Your task to perform on an android device: toggle notifications settings in the gmail app Image 0: 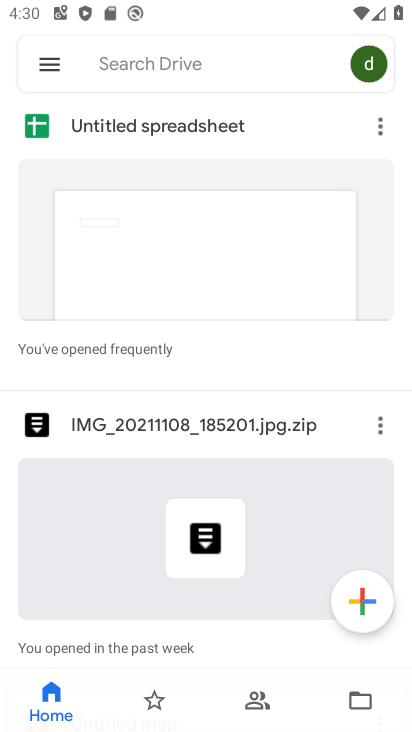
Step 0: press home button
Your task to perform on an android device: toggle notifications settings in the gmail app Image 1: 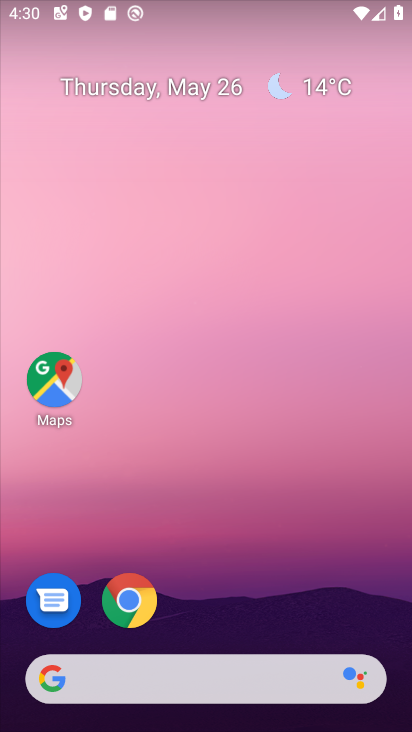
Step 1: drag from (235, 626) to (261, 114)
Your task to perform on an android device: toggle notifications settings in the gmail app Image 2: 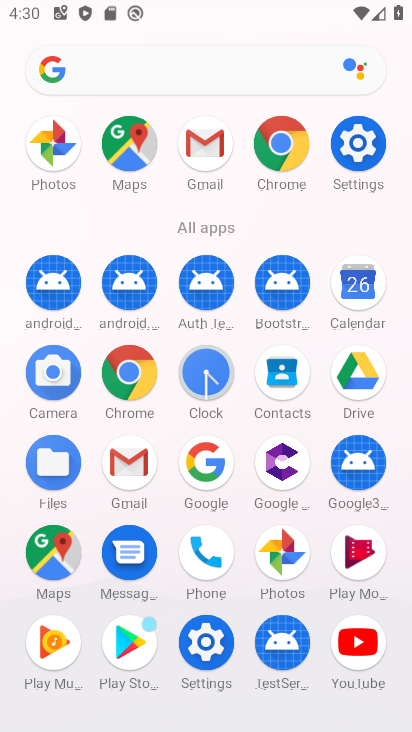
Step 2: click (220, 626)
Your task to perform on an android device: toggle notifications settings in the gmail app Image 3: 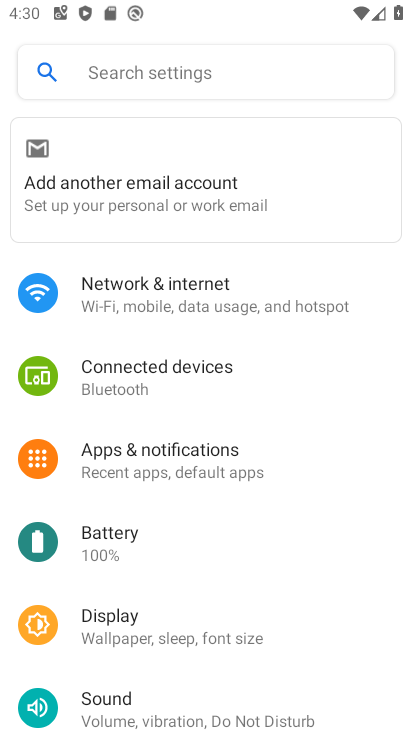
Step 3: click (179, 448)
Your task to perform on an android device: toggle notifications settings in the gmail app Image 4: 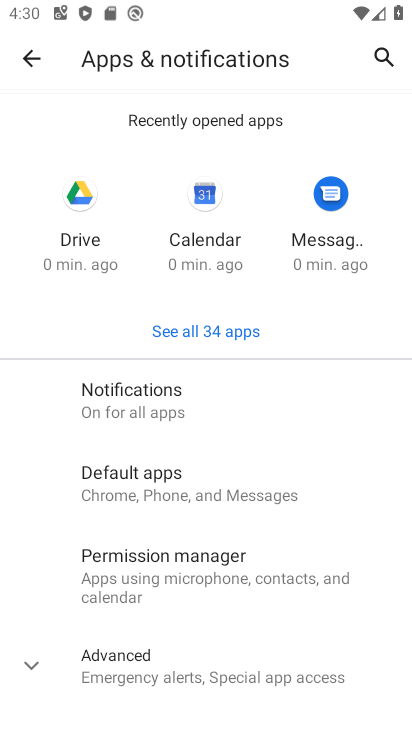
Step 4: click (142, 411)
Your task to perform on an android device: toggle notifications settings in the gmail app Image 5: 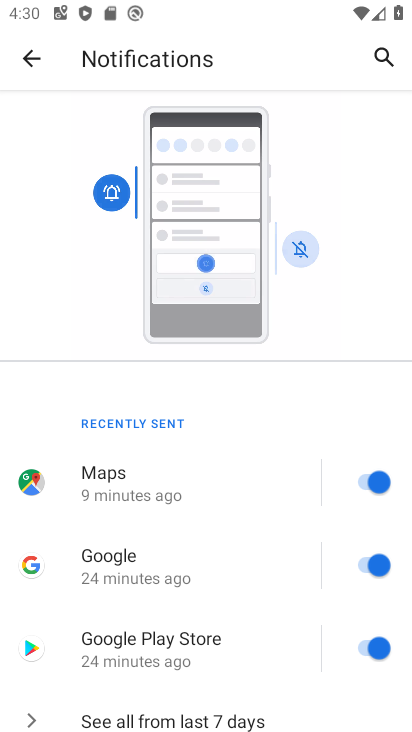
Step 5: drag from (188, 661) to (194, 185)
Your task to perform on an android device: toggle notifications settings in the gmail app Image 6: 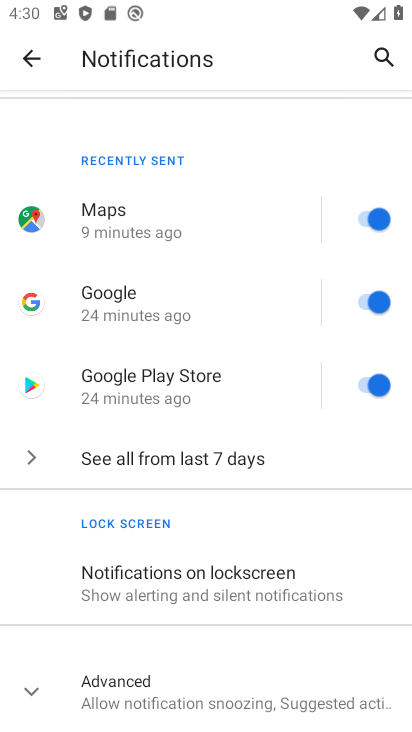
Step 6: click (203, 565)
Your task to perform on an android device: toggle notifications settings in the gmail app Image 7: 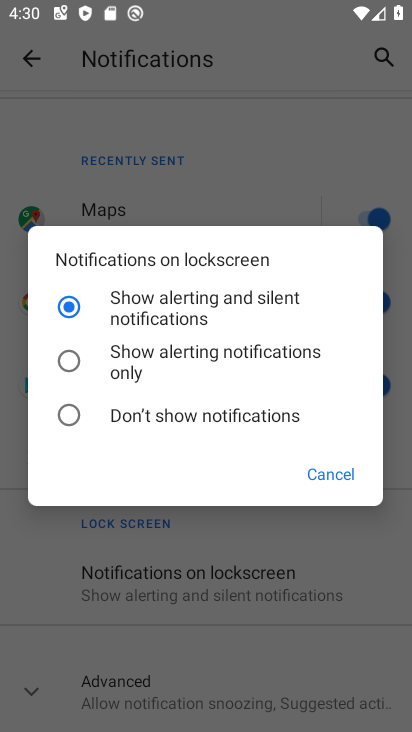
Step 7: click (141, 374)
Your task to perform on an android device: toggle notifications settings in the gmail app Image 8: 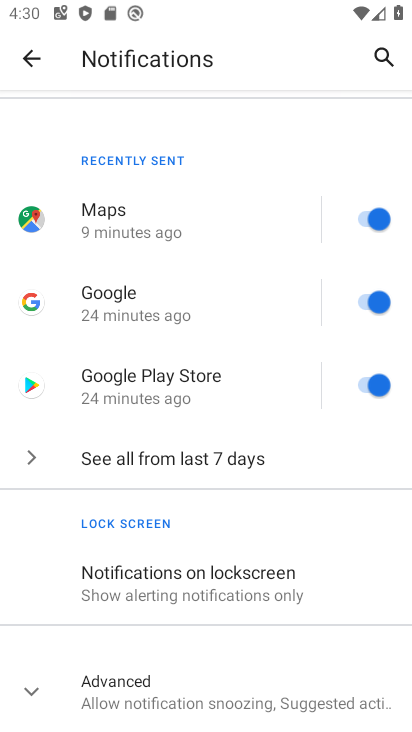
Step 8: click (186, 675)
Your task to perform on an android device: toggle notifications settings in the gmail app Image 9: 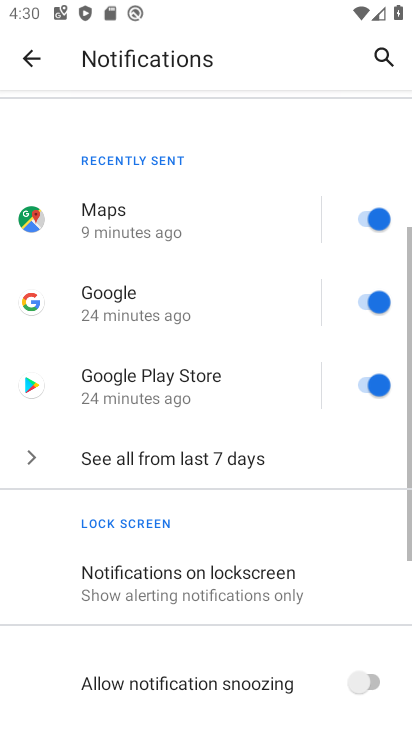
Step 9: drag from (186, 675) to (243, 237)
Your task to perform on an android device: toggle notifications settings in the gmail app Image 10: 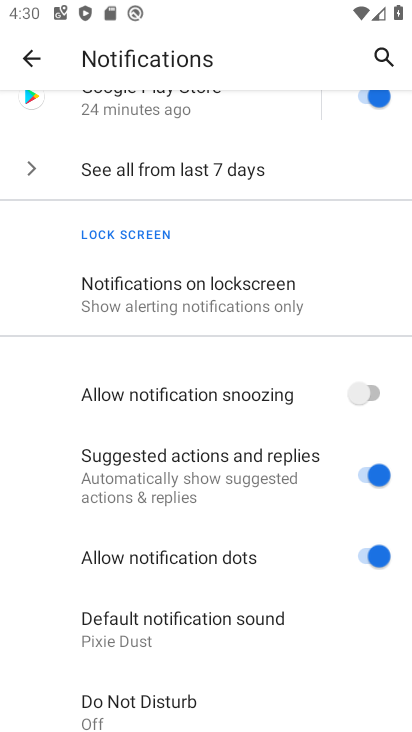
Step 10: click (381, 544)
Your task to perform on an android device: toggle notifications settings in the gmail app Image 11: 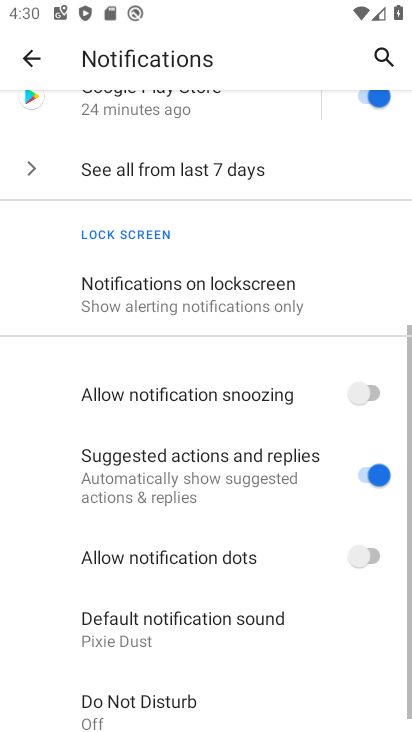
Step 11: click (370, 404)
Your task to perform on an android device: toggle notifications settings in the gmail app Image 12: 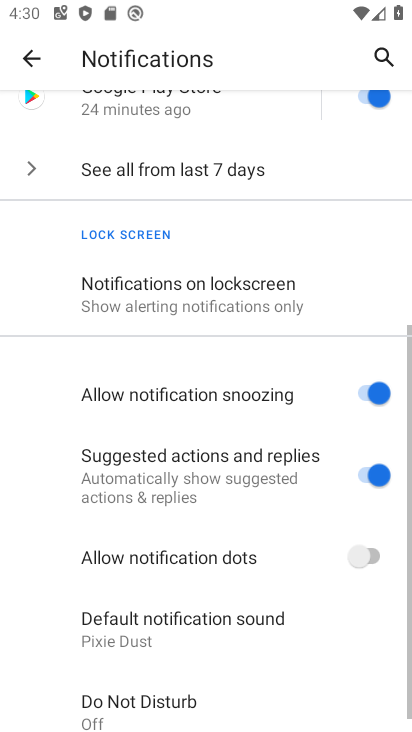
Step 12: task complete